Your task to perform on an android device: open device folders in google photos Image 0: 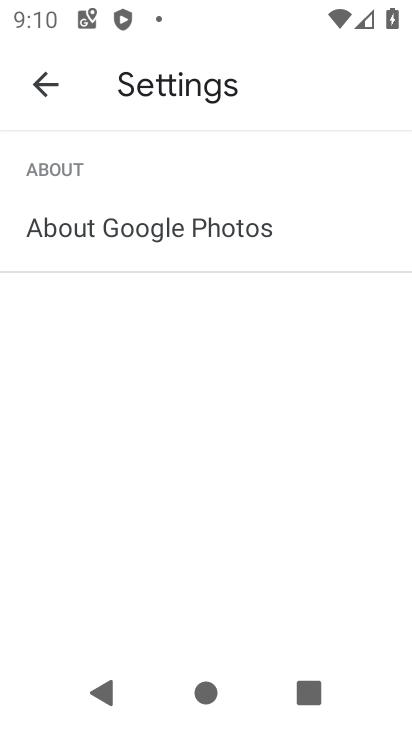
Step 0: click (38, 78)
Your task to perform on an android device: open device folders in google photos Image 1: 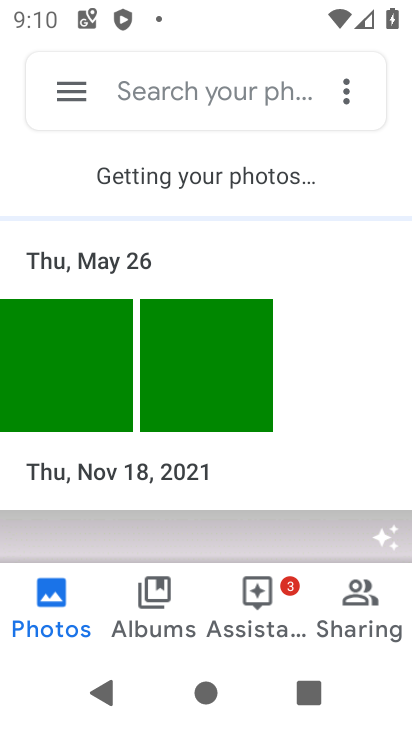
Step 1: click (68, 88)
Your task to perform on an android device: open device folders in google photos Image 2: 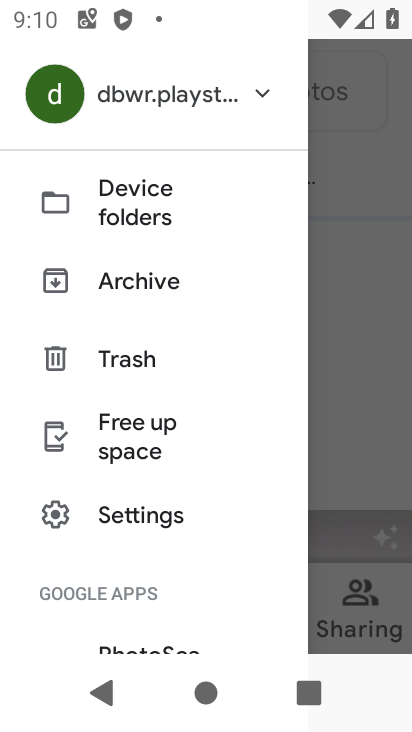
Step 2: click (132, 227)
Your task to perform on an android device: open device folders in google photos Image 3: 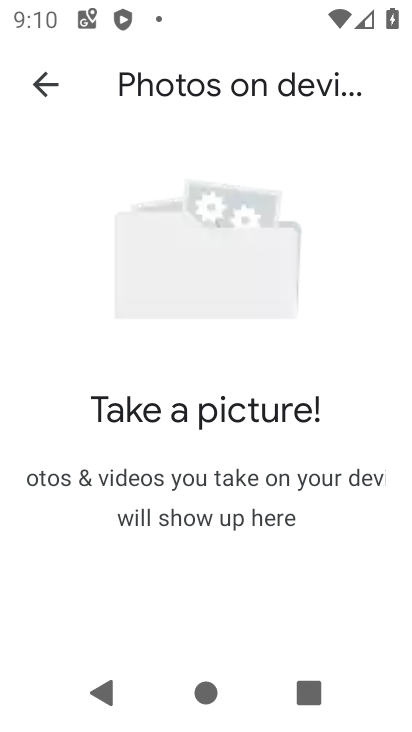
Step 3: task complete